Your task to perform on an android device: Open Wikipedia Image 0: 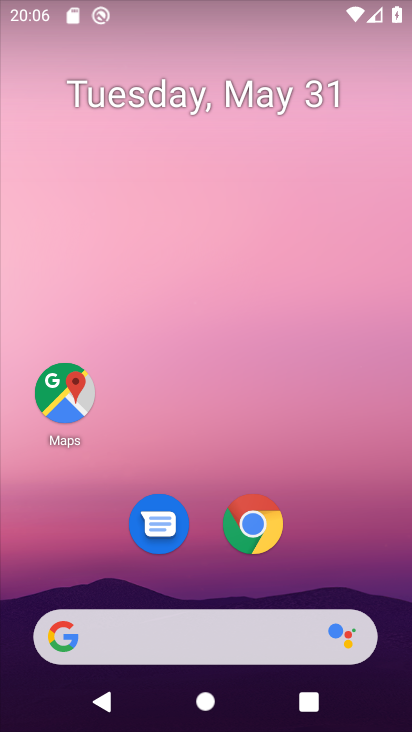
Step 0: drag from (204, 464) to (226, 36)
Your task to perform on an android device: Open Wikipedia Image 1: 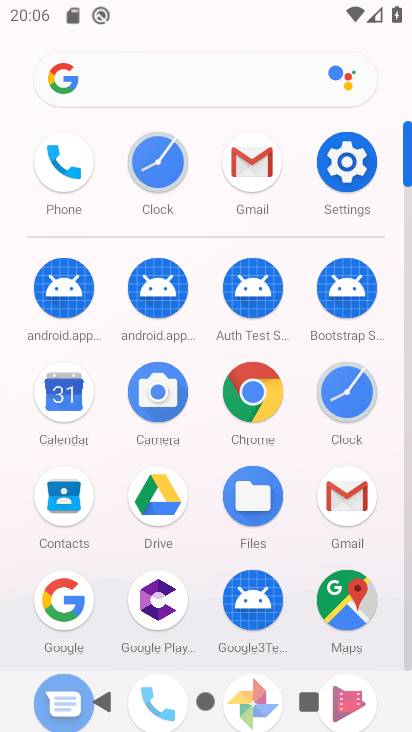
Step 1: click (242, 379)
Your task to perform on an android device: Open Wikipedia Image 2: 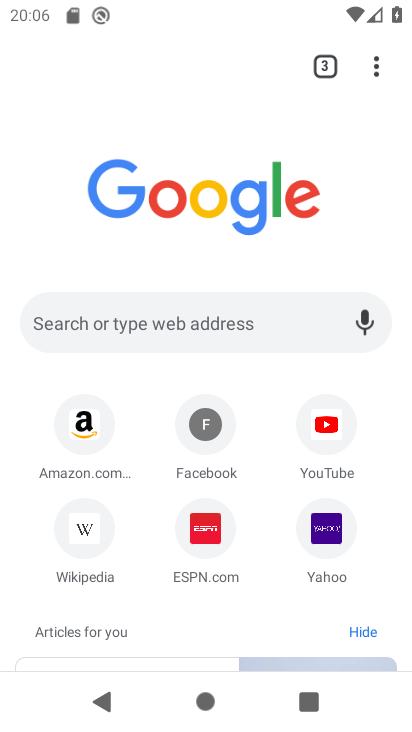
Step 2: click (82, 517)
Your task to perform on an android device: Open Wikipedia Image 3: 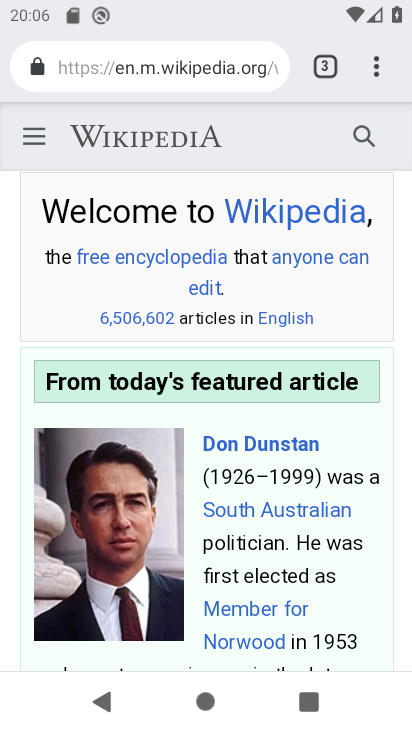
Step 3: task complete